Your task to perform on an android device: search for starred emails in the gmail app Image 0: 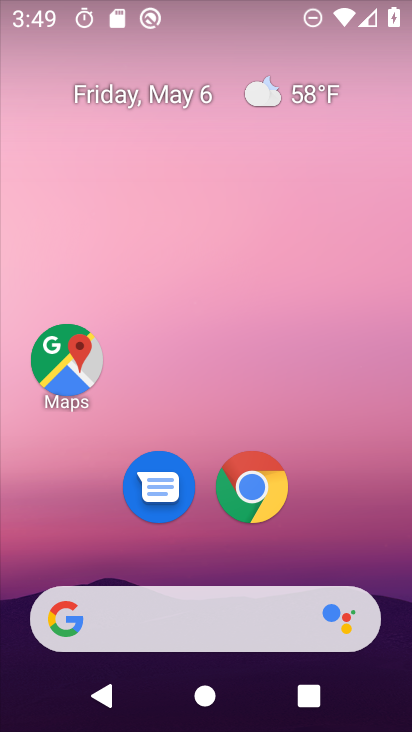
Step 0: drag from (336, 194) to (396, 55)
Your task to perform on an android device: search for starred emails in the gmail app Image 1: 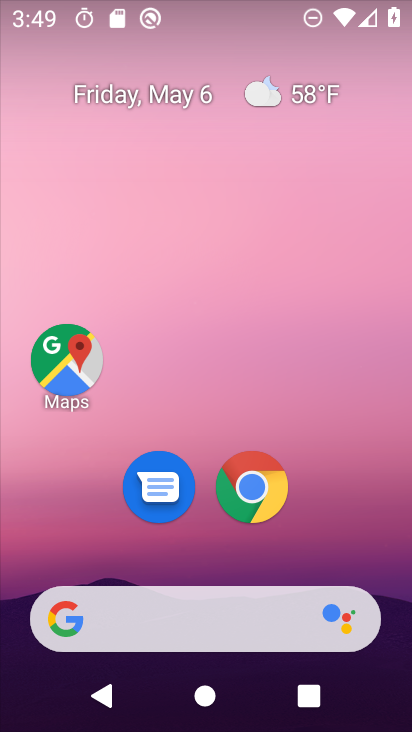
Step 1: drag from (266, 573) to (350, 0)
Your task to perform on an android device: search for starred emails in the gmail app Image 2: 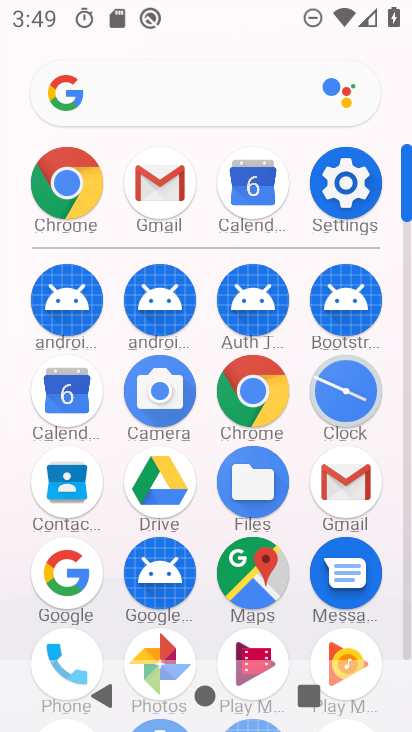
Step 2: click (335, 491)
Your task to perform on an android device: search for starred emails in the gmail app Image 3: 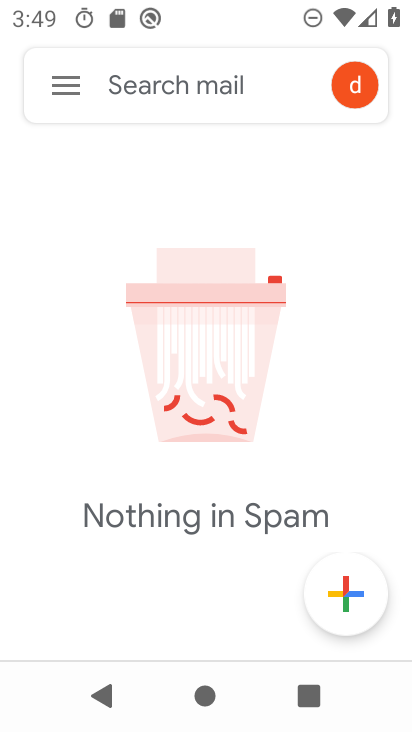
Step 3: click (54, 84)
Your task to perform on an android device: search for starred emails in the gmail app Image 4: 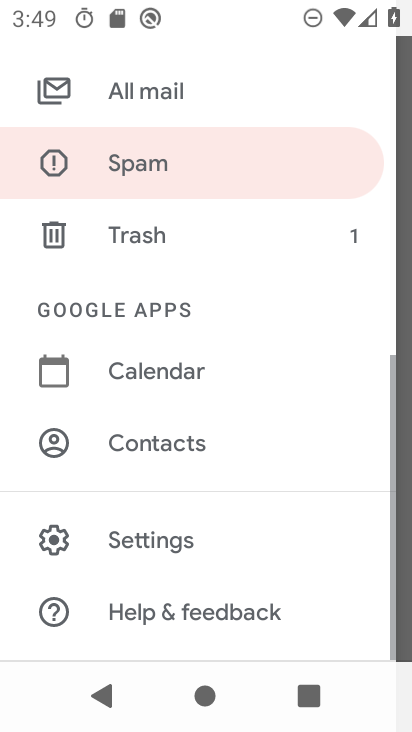
Step 4: drag from (148, 214) to (212, 582)
Your task to perform on an android device: search for starred emails in the gmail app Image 5: 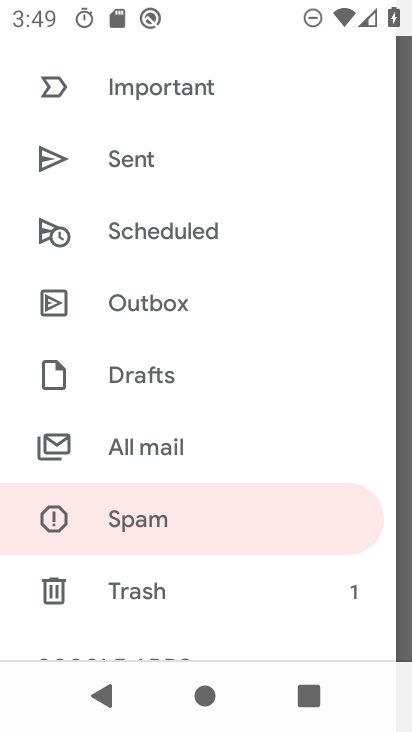
Step 5: drag from (172, 118) to (148, 544)
Your task to perform on an android device: search for starred emails in the gmail app Image 6: 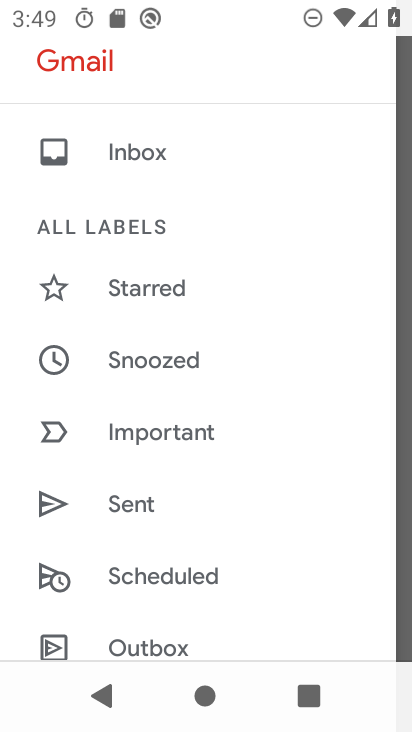
Step 6: click (133, 302)
Your task to perform on an android device: search for starred emails in the gmail app Image 7: 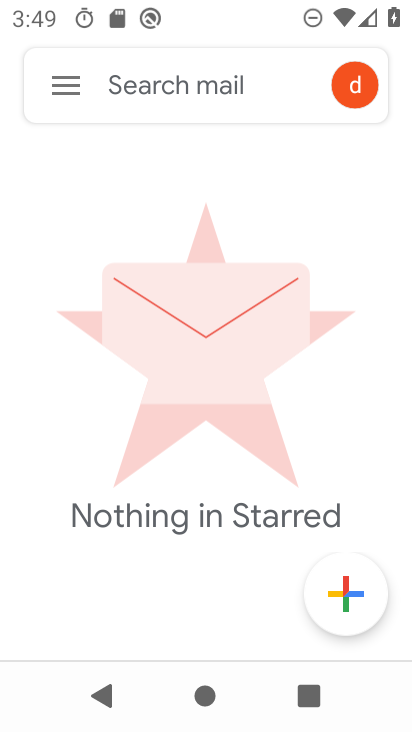
Step 7: task complete